Your task to perform on an android device: set an alarm Image 0: 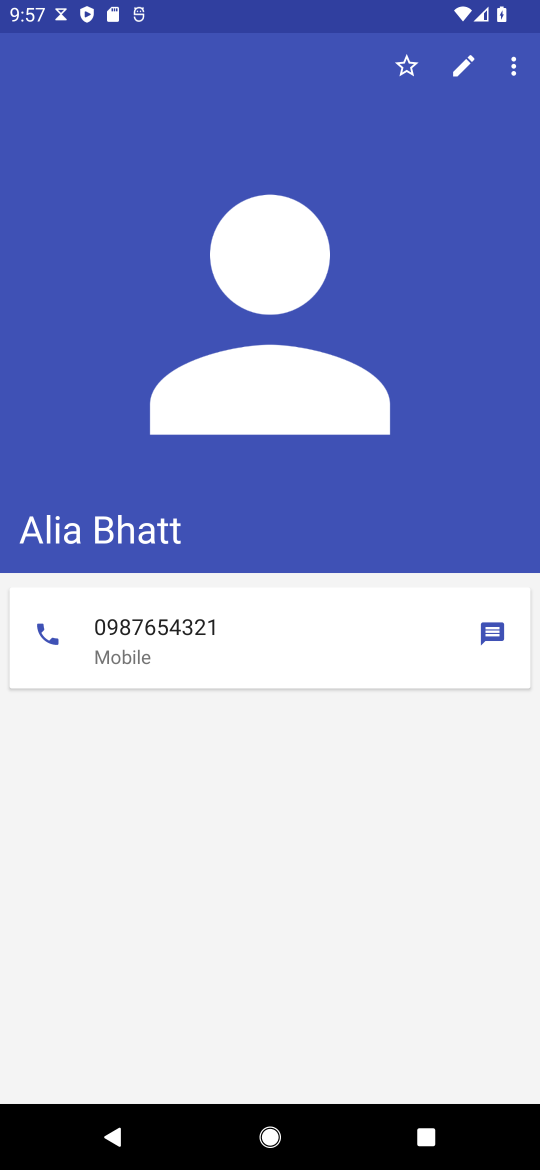
Step 0: press home button
Your task to perform on an android device: set an alarm Image 1: 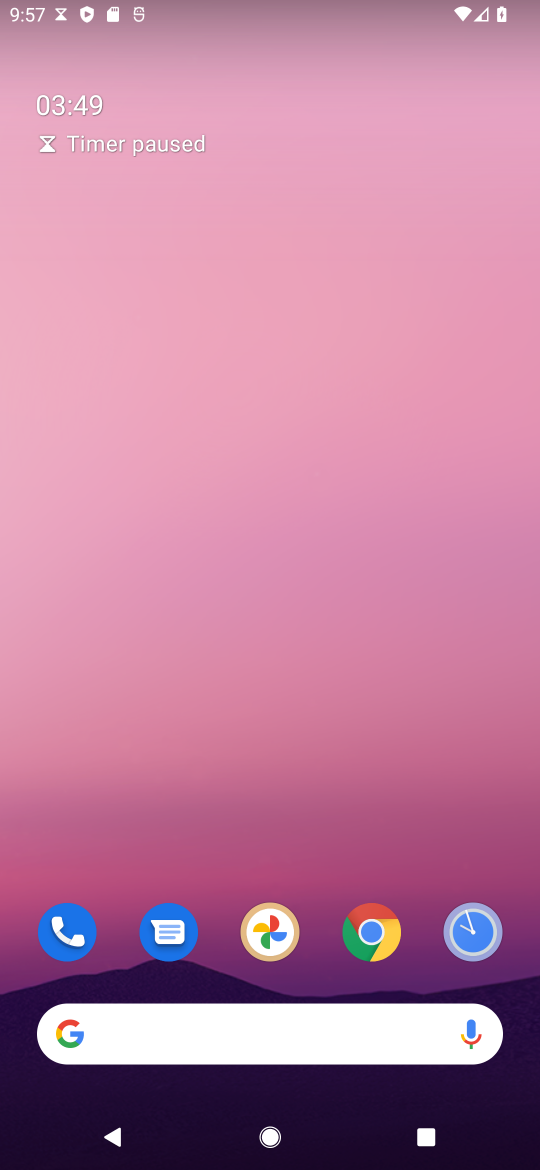
Step 1: click (472, 931)
Your task to perform on an android device: set an alarm Image 2: 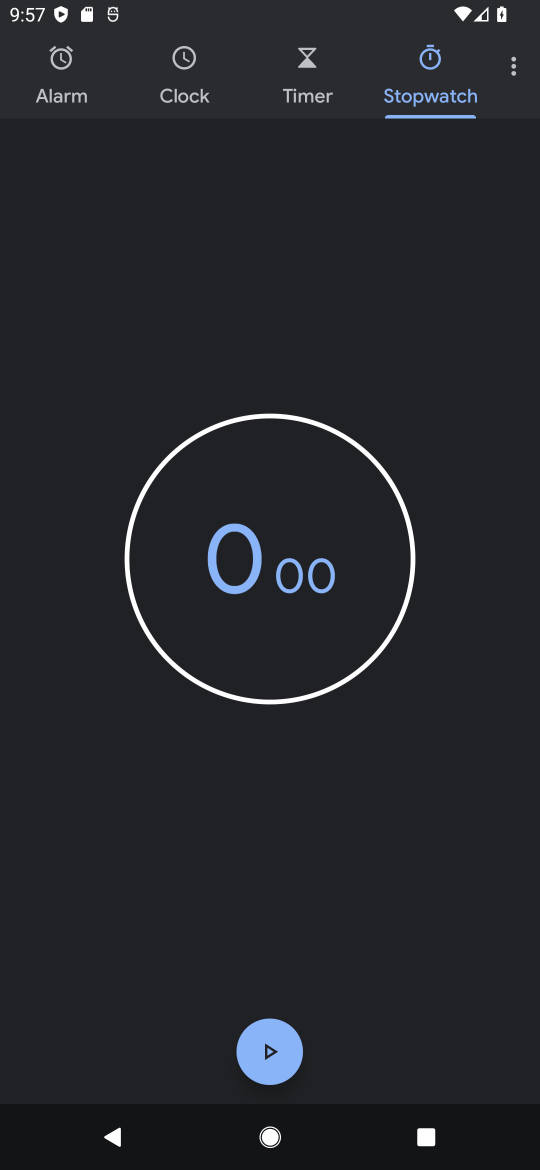
Step 2: click (62, 60)
Your task to perform on an android device: set an alarm Image 3: 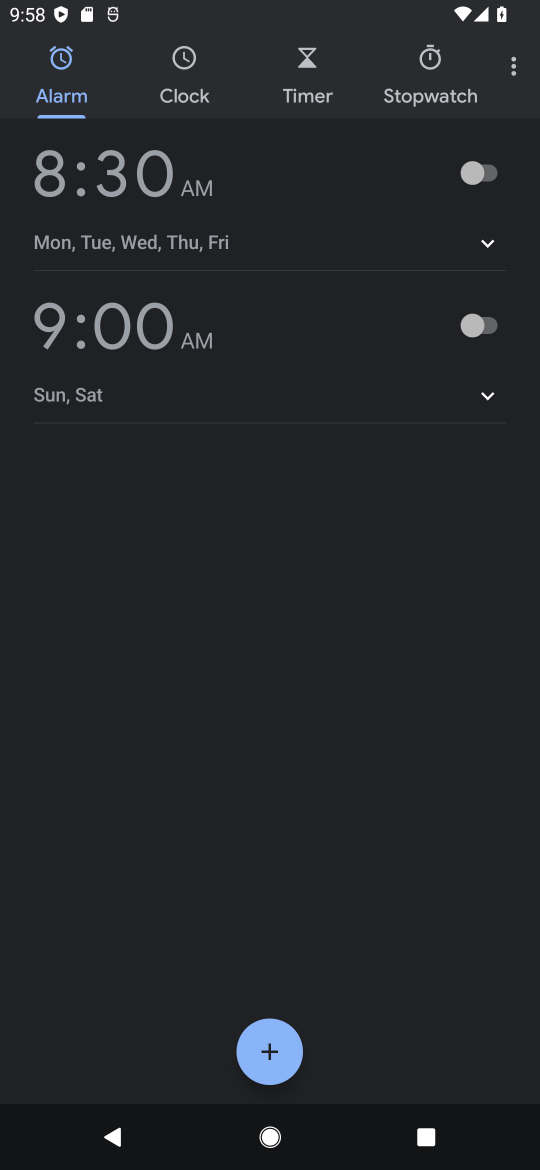
Step 3: click (269, 1058)
Your task to perform on an android device: set an alarm Image 4: 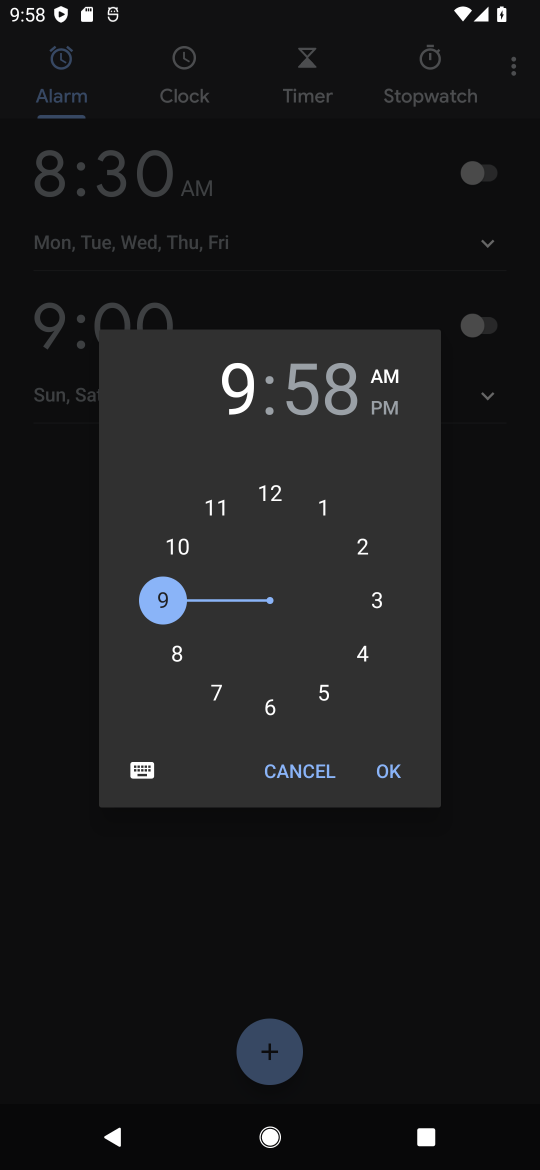
Step 4: click (269, 720)
Your task to perform on an android device: set an alarm Image 5: 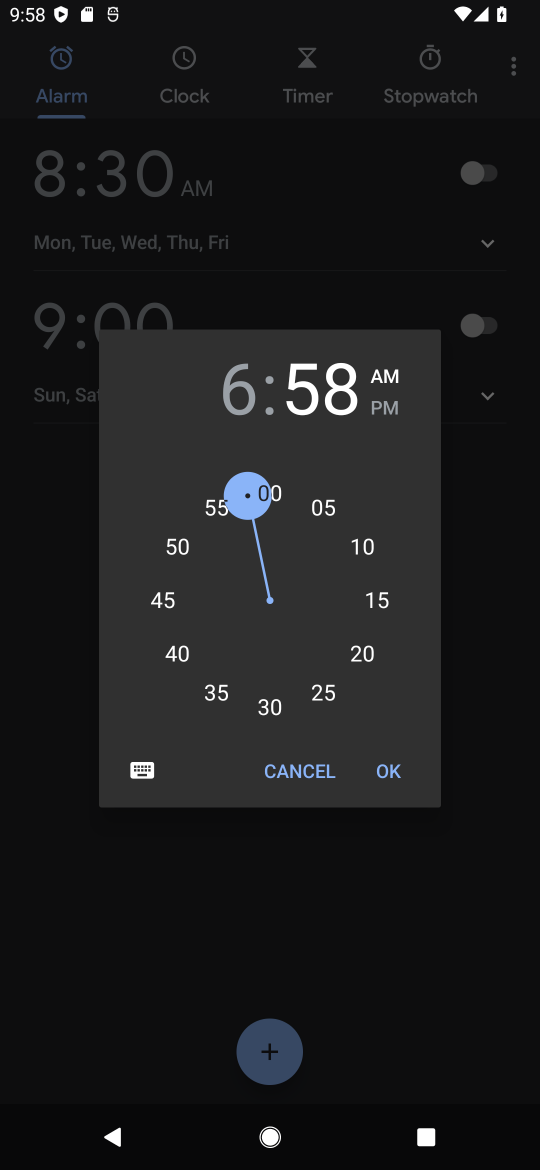
Step 5: click (195, 661)
Your task to perform on an android device: set an alarm Image 6: 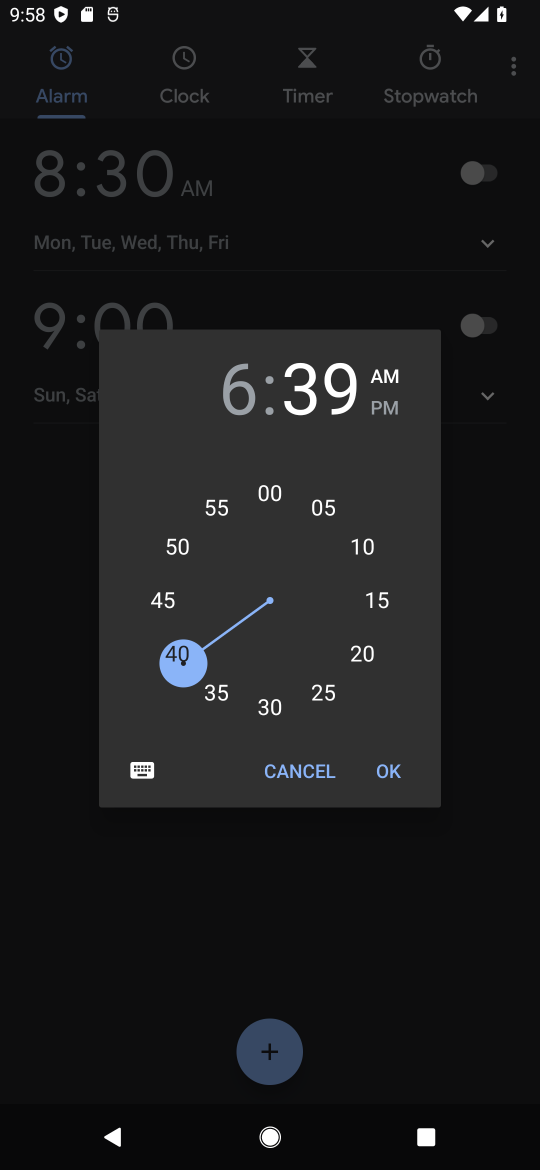
Step 6: click (393, 755)
Your task to perform on an android device: set an alarm Image 7: 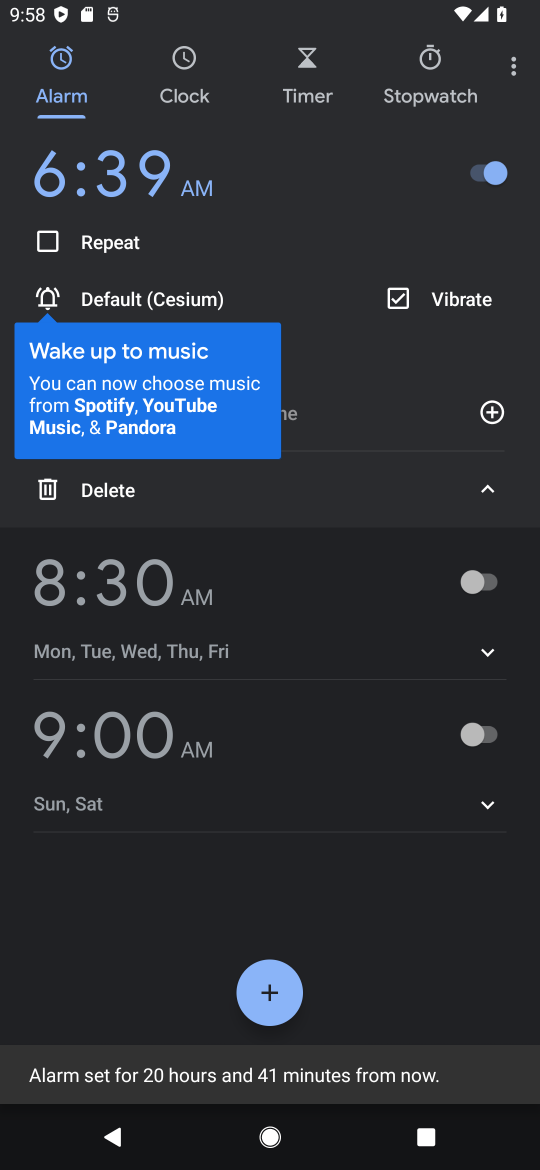
Step 7: task complete